Your task to perform on an android device: Open calendar and show me the second week of next month Image 0: 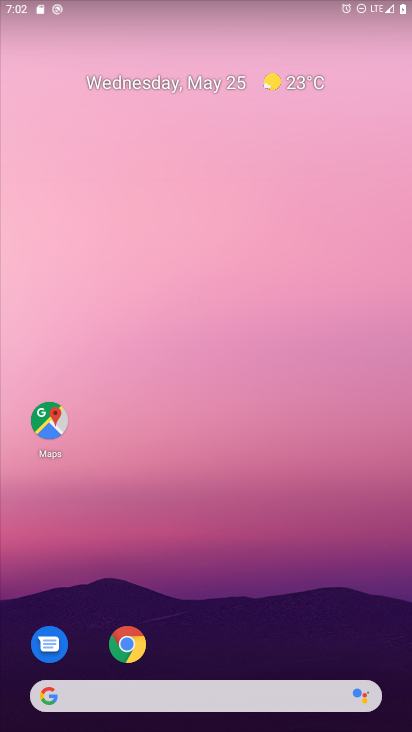
Step 0: drag from (340, 623) to (308, 113)
Your task to perform on an android device: Open calendar and show me the second week of next month Image 1: 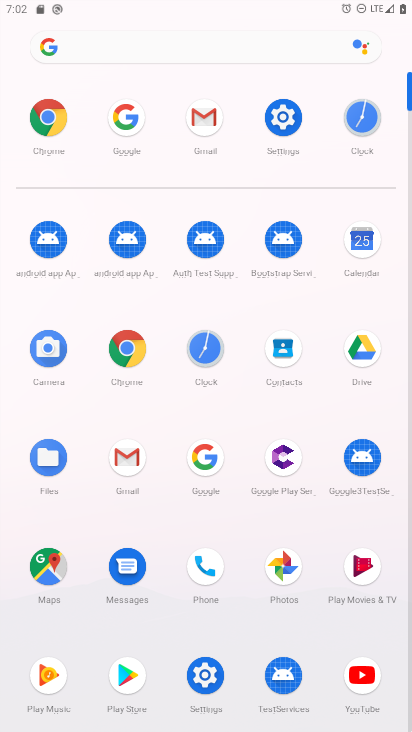
Step 1: click (380, 232)
Your task to perform on an android device: Open calendar and show me the second week of next month Image 2: 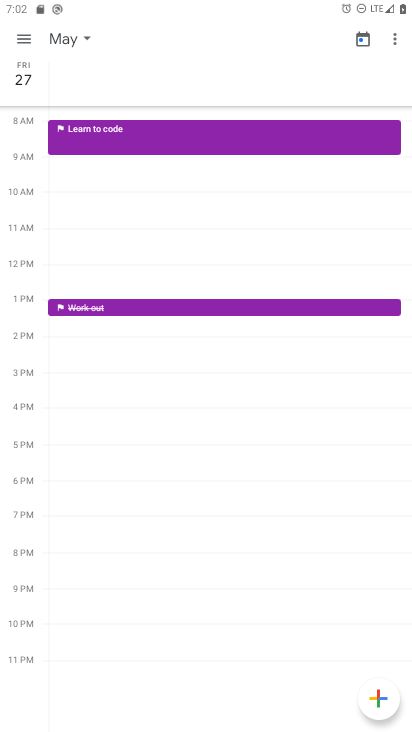
Step 2: click (55, 25)
Your task to perform on an android device: Open calendar and show me the second week of next month Image 3: 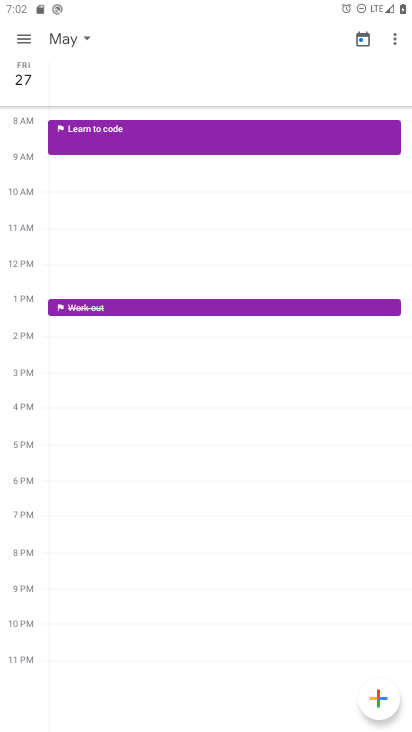
Step 3: click (72, 39)
Your task to perform on an android device: Open calendar and show me the second week of next month Image 4: 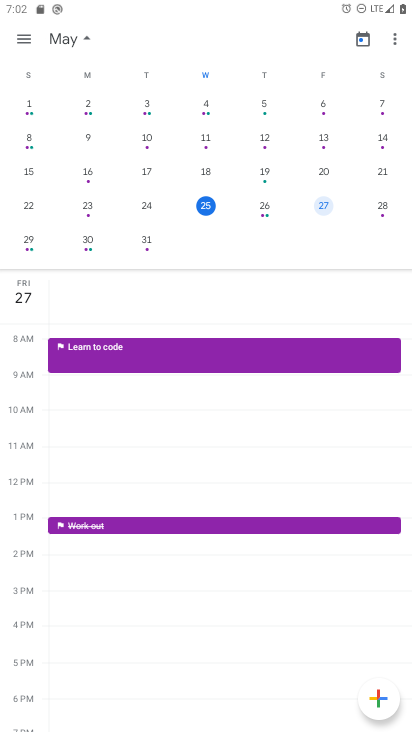
Step 4: drag from (312, 216) to (0, 183)
Your task to perform on an android device: Open calendar and show me the second week of next month Image 5: 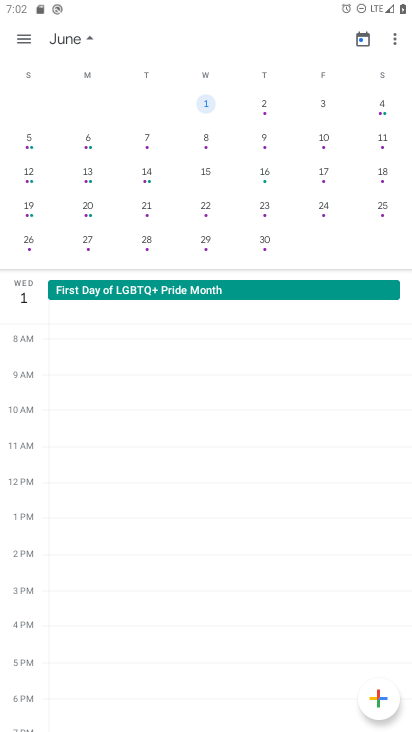
Step 5: click (139, 176)
Your task to perform on an android device: Open calendar and show me the second week of next month Image 6: 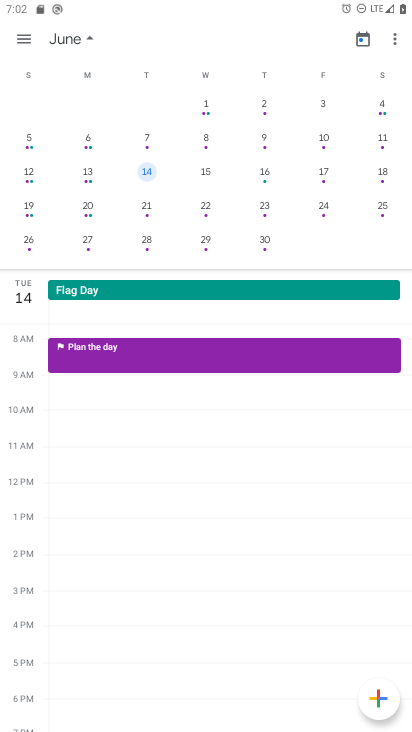
Step 6: task complete